Your task to perform on an android device: Go to privacy settings Image 0: 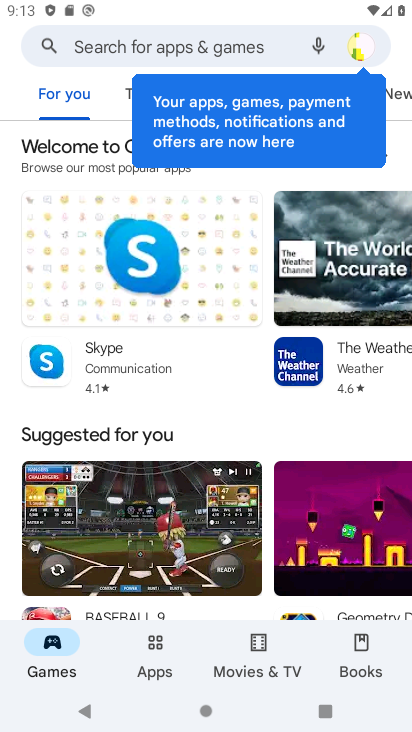
Step 0: press home button
Your task to perform on an android device: Go to privacy settings Image 1: 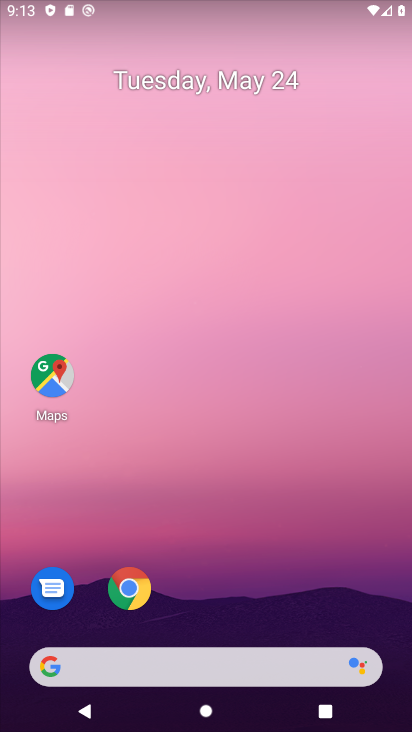
Step 1: drag from (244, 542) to (278, 35)
Your task to perform on an android device: Go to privacy settings Image 2: 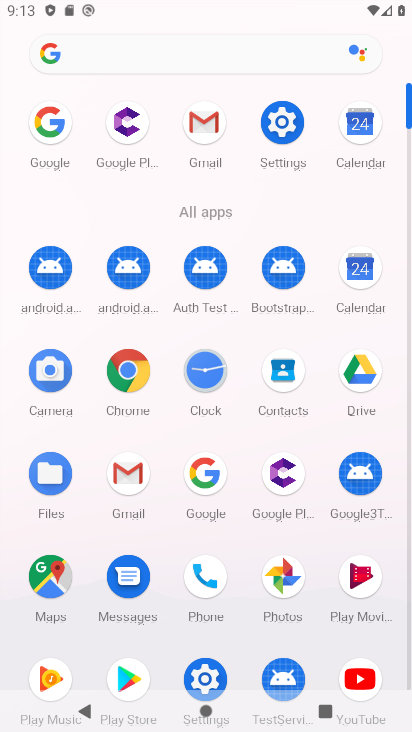
Step 2: click (279, 122)
Your task to perform on an android device: Go to privacy settings Image 3: 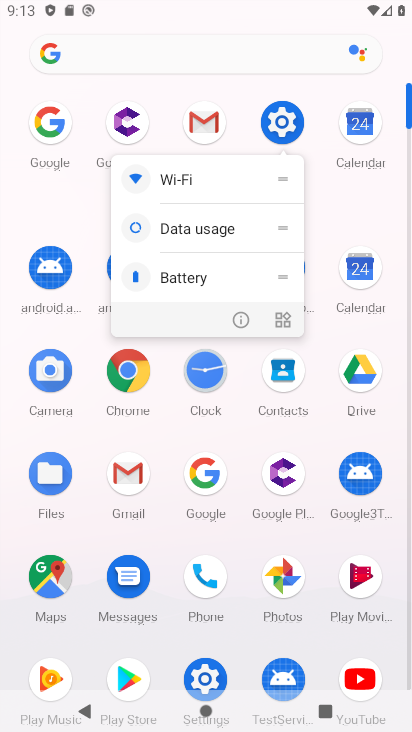
Step 3: click (295, 119)
Your task to perform on an android device: Go to privacy settings Image 4: 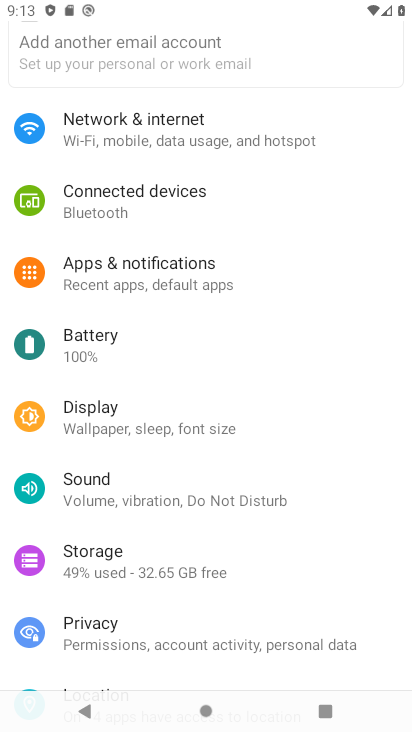
Step 4: click (104, 519)
Your task to perform on an android device: Go to privacy settings Image 5: 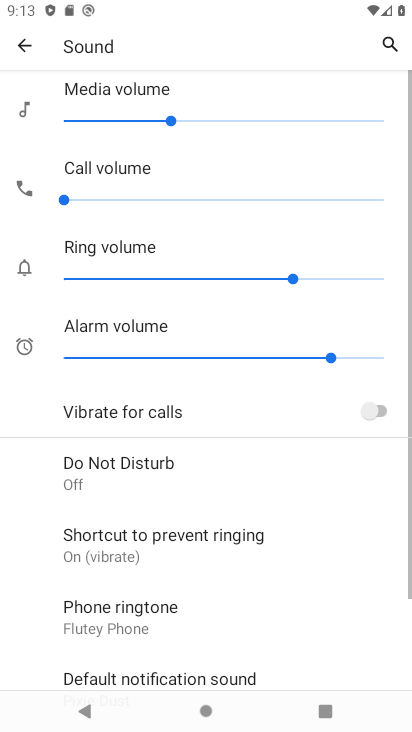
Step 5: click (11, 47)
Your task to perform on an android device: Go to privacy settings Image 6: 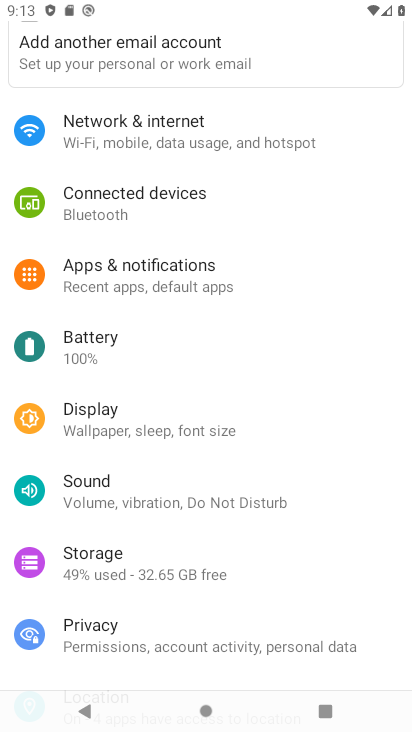
Step 6: click (97, 645)
Your task to perform on an android device: Go to privacy settings Image 7: 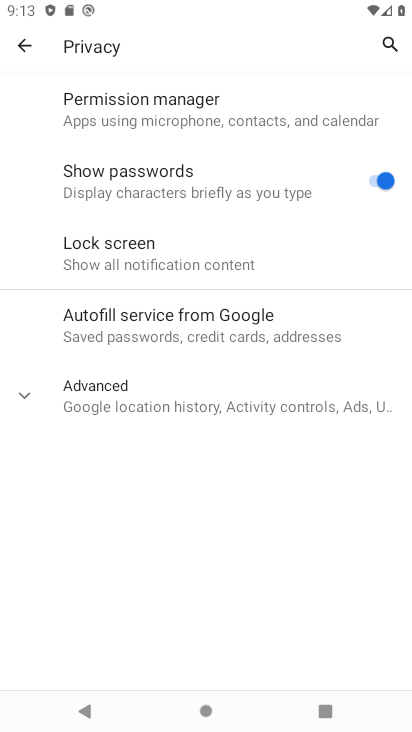
Step 7: task complete